Your task to perform on an android device: Is it going to rain this weekend? Image 0: 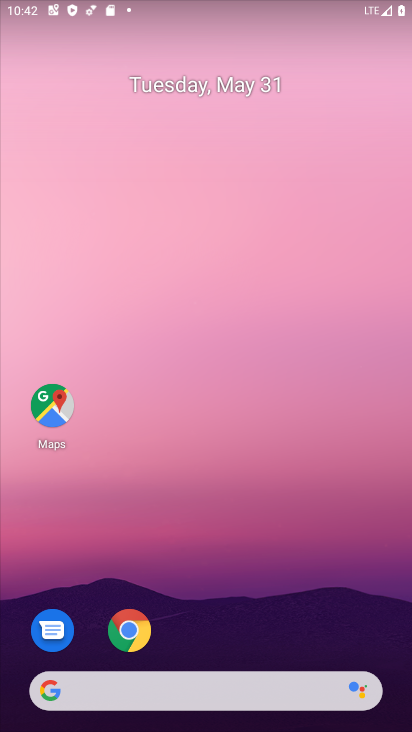
Step 0: press home button
Your task to perform on an android device: Is it going to rain this weekend? Image 1: 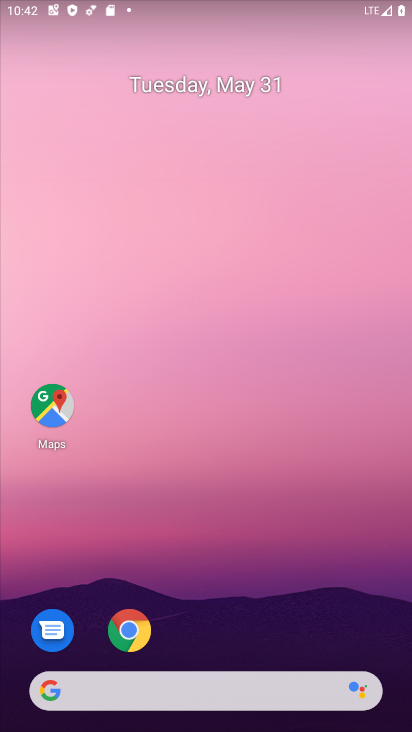
Step 1: click (79, 690)
Your task to perform on an android device: Is it going to rain this weekend? Image 2: 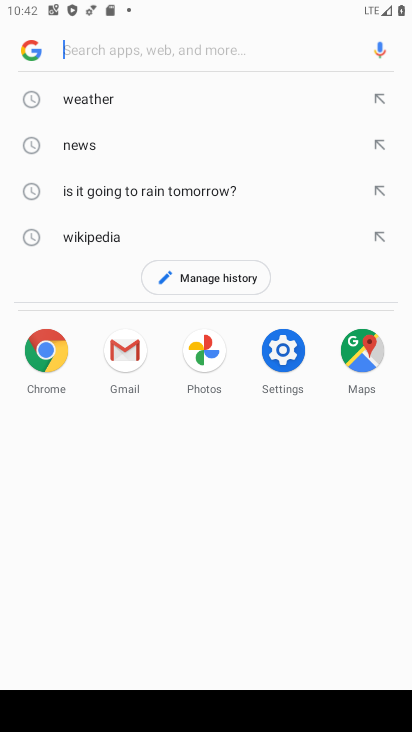
Step 2: type "Is it going to rain this weekend?"
Your task to perform on an android device: Is it going to rain this weekend? Image 3: 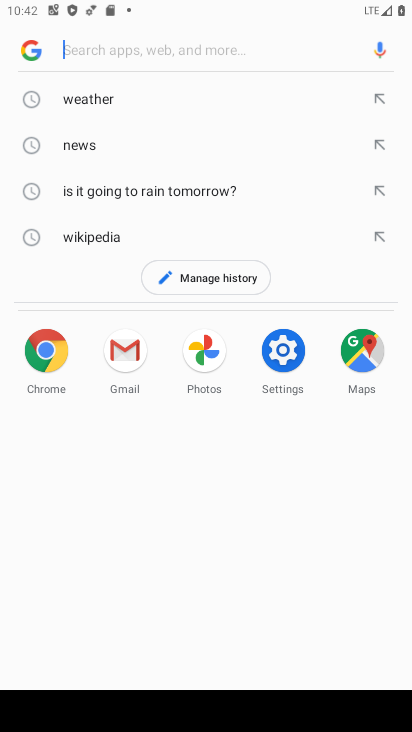
Step 3: click (195, 47)
Your task to perform on an android device: Is it going to rain this weekend? Image 4: 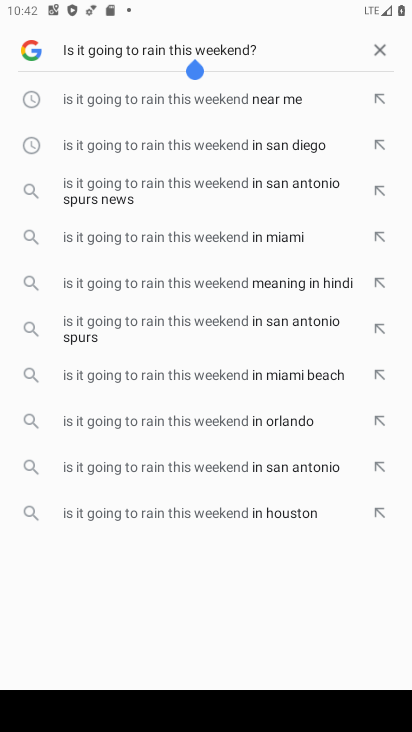
Step 4: click (176, 102)
Your task to perform on an android device: Is it going to rain this weekend? Image 5: 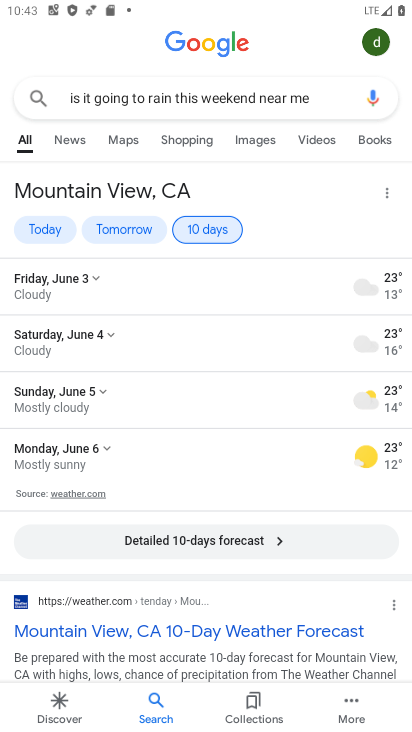
Step 5: task complete